Your task to perform on an android device: check storage Image 0: 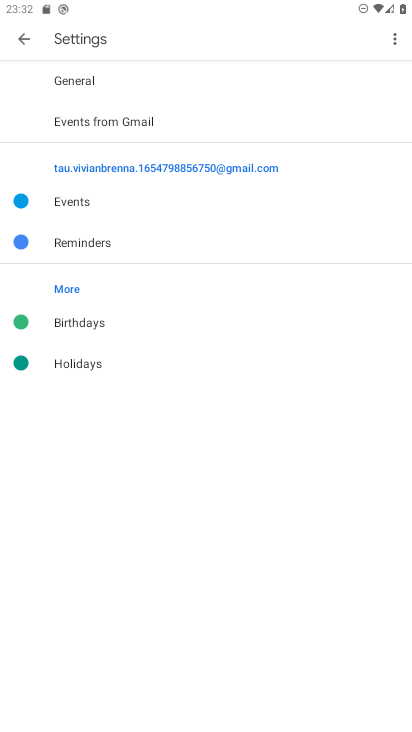
Step 0: press home button
Your task to perform on an android device: check storage Image 1: 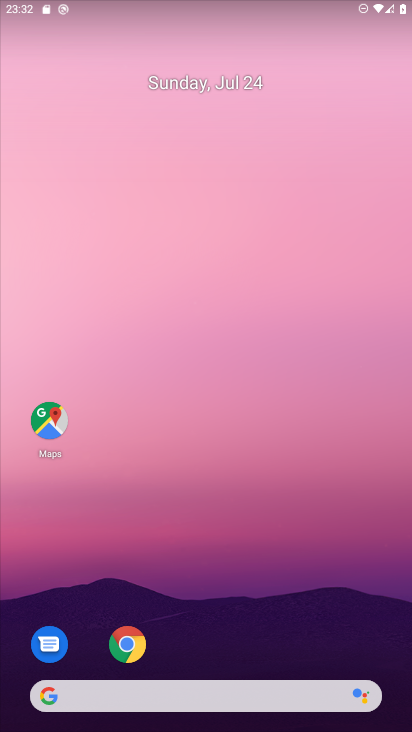
Step 1: drag from (362, 632) to (330, 52)
Your task to perform on an android device: check storage Image 2: 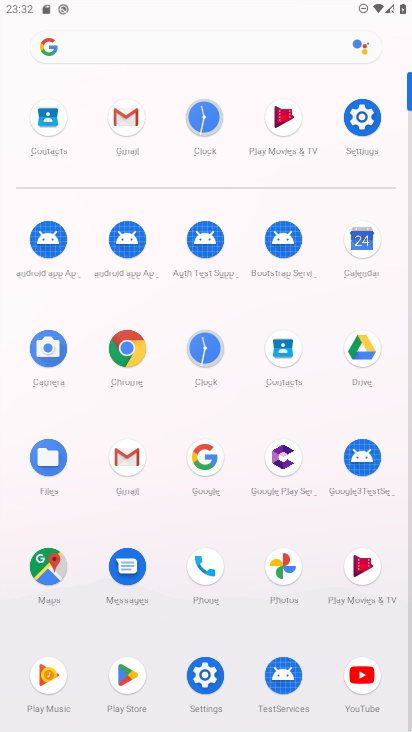
Step 2: click (201, 674)
Your task to perform on an android device: check storage Image 3: 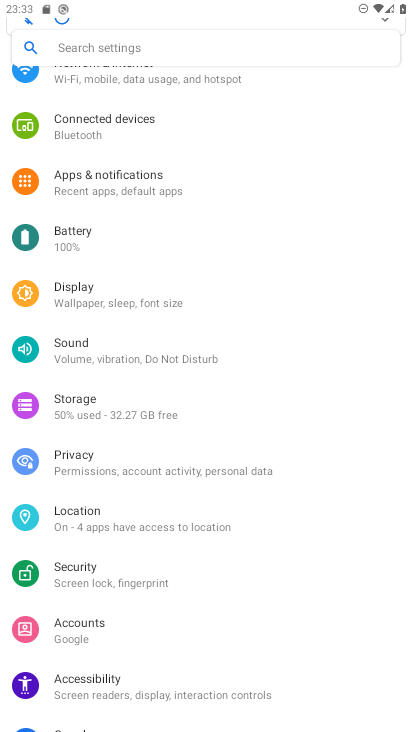
Step 3: click (96, 406)
Your task to perform on an android device: check storage Image 4: 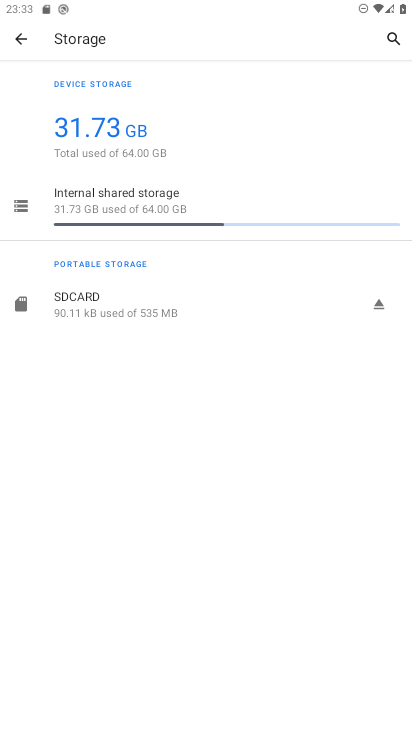
Step 4: task complete